Your task to perform on an android device: Open Google Maps Image 0: 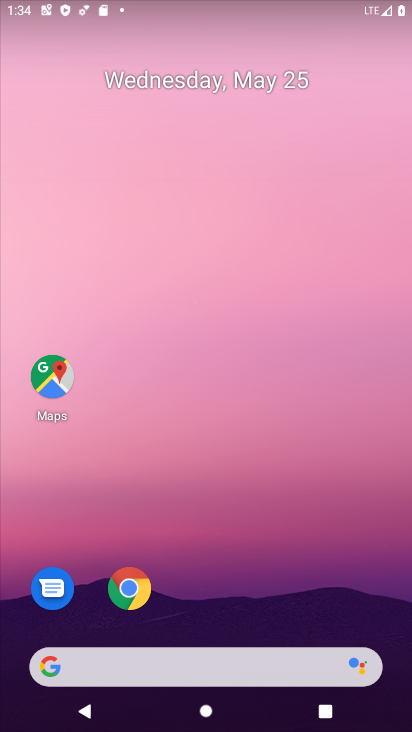
Step 0: click (54, 379)
Your task to perform on an android device: Open Google Maps Image 1: 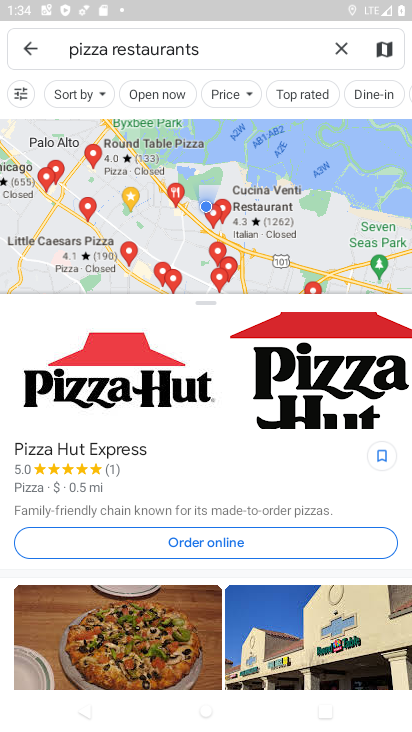
Step 1: task complete